Your task to perform on an android device: Go to Maps Image 0: 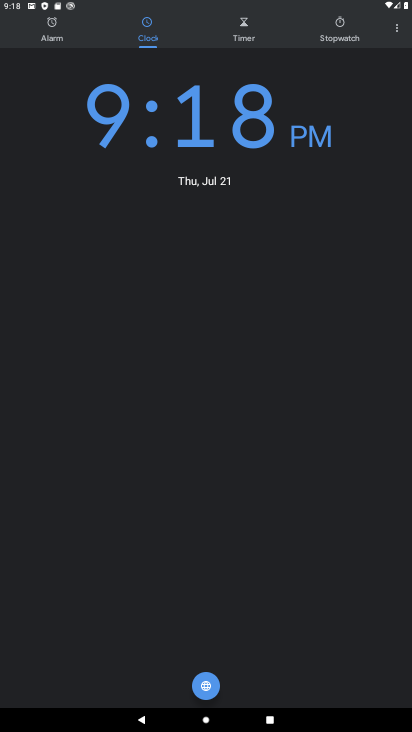
Step 0: press home button
Your task to perform on an android device: Go to Maps Image 1: 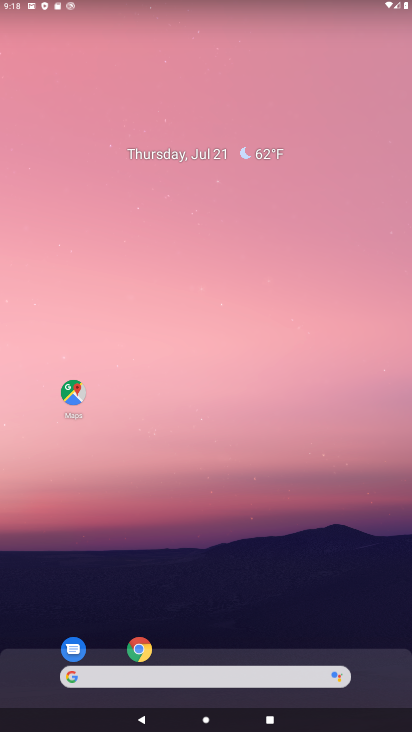
Step 1: click (73, 395)
Your task to perform on an android device: Go to Maps Image 2: 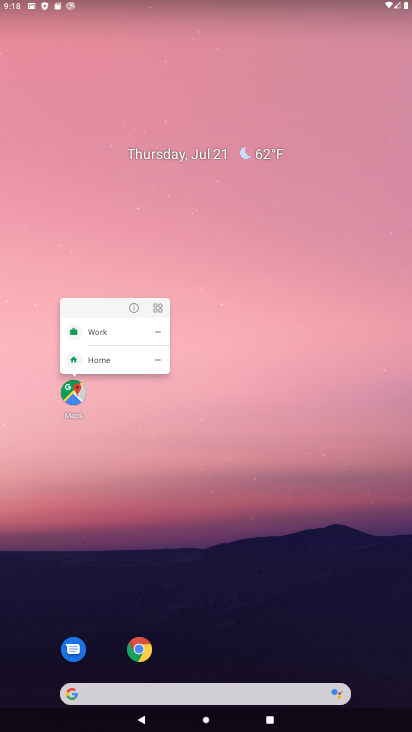
Step 2: click (73, 395)
Your task to perform on an android device: Go to Maps Image 3: 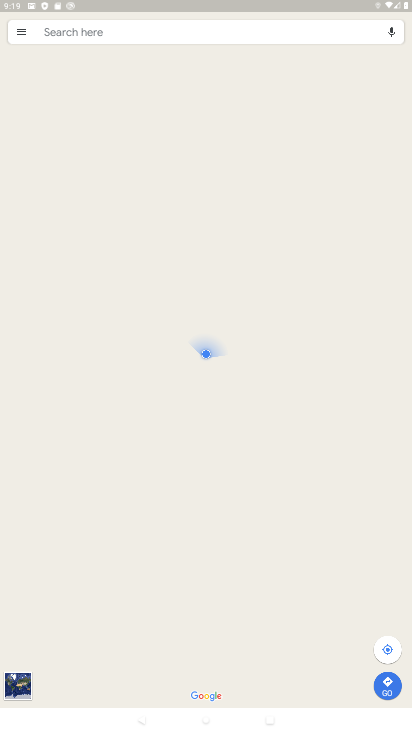
Step 3: task complete